Your task to perform on an android device: refresh tabs in the chrome app Image 0: 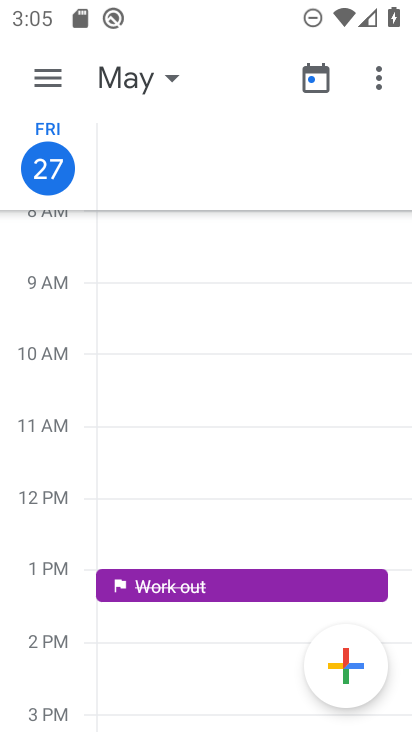
Step 0: press home button
Your task to perform on an android device: refresh tabs in the chrome app Image 1: 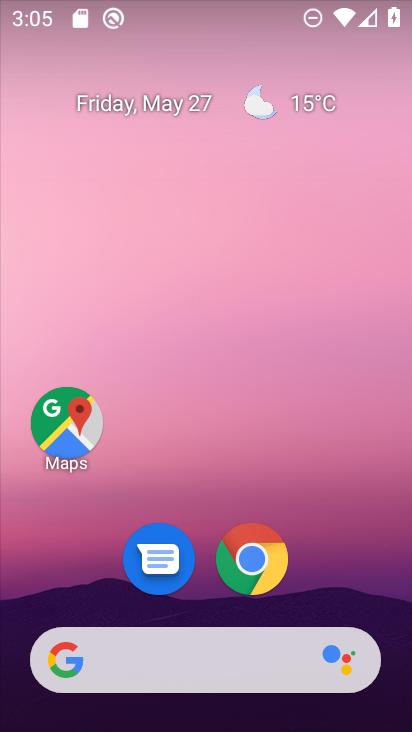
Step 1: drag from (225, 632) to (245, 48)
Your task to perform on an android device: refresh tabs in the chrome app Image 2: 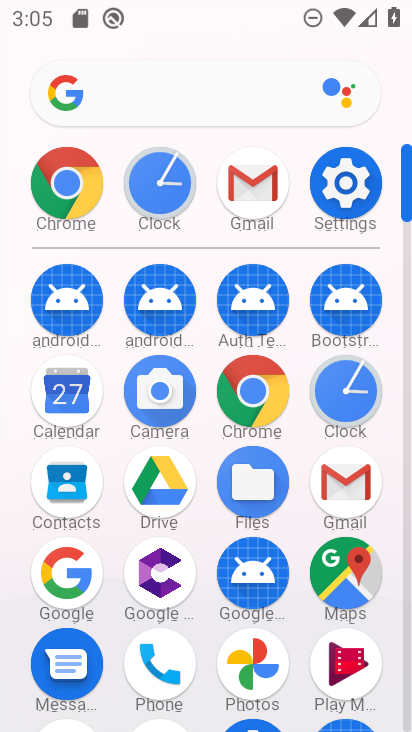
Step 2: click (260, 387)
Your task to perform on an android device: refresh tabs in the chrome app Image 3: 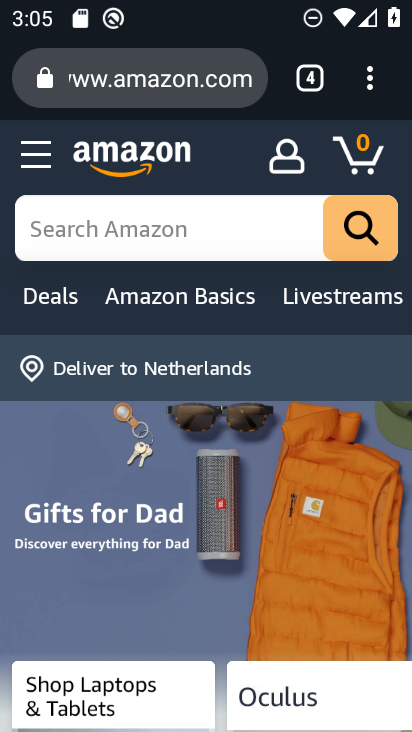
Step 3: task complete